Your task to perform on an android device: all mails in gmail Image 0: 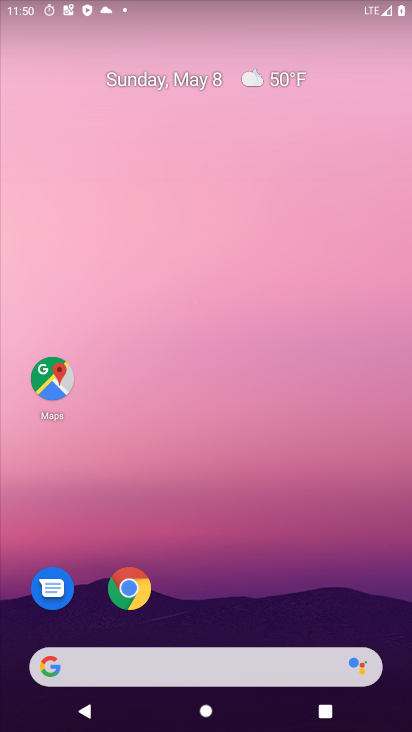
Step 0: drag from (265, 592) to (195, 60)
Your task to perform on an android device: all mails in gmail Image 1: 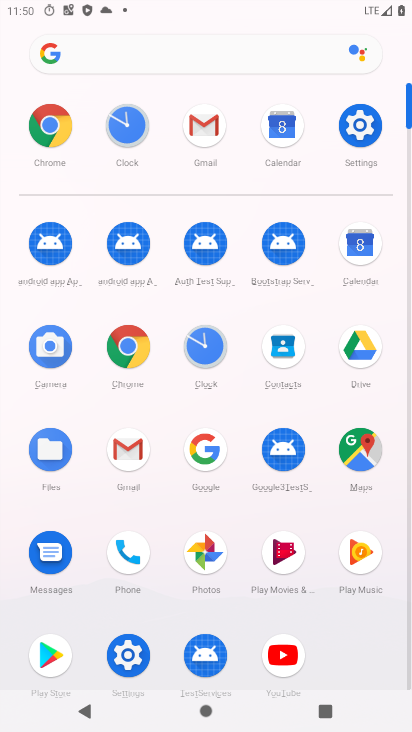
Step 1: click (130, 453)
Your task to perform on an android device: all mails in gmail Image 2: 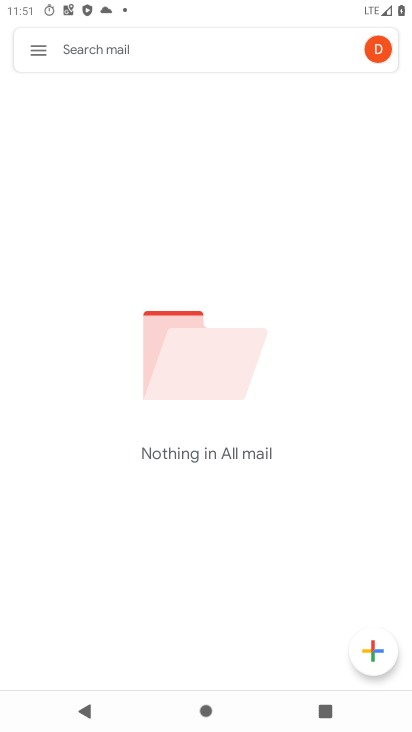
Step 2: task complete